Your task to perform on an android device: Go to location settings Image 0: 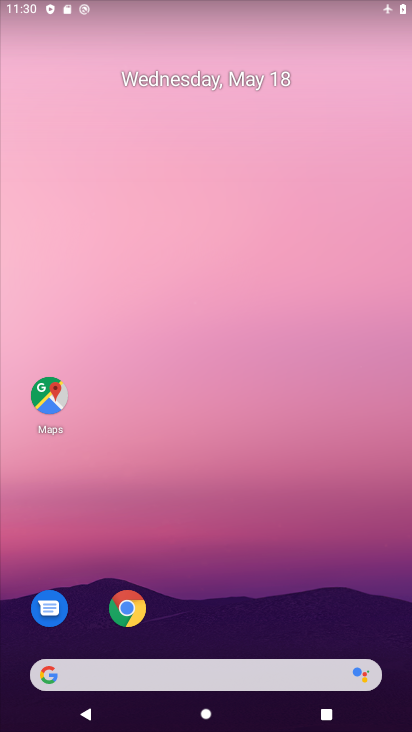
Step 0: drag from (348, 595) to (362, 96)
Your task to perform on an android device: Go to location settings Image 1: 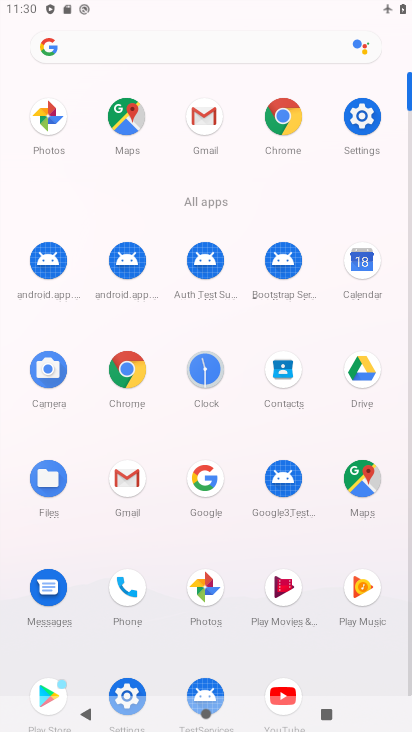
Step 1: click (360, 119)
Your task to perform on an android device: Go to location settings Image 2: 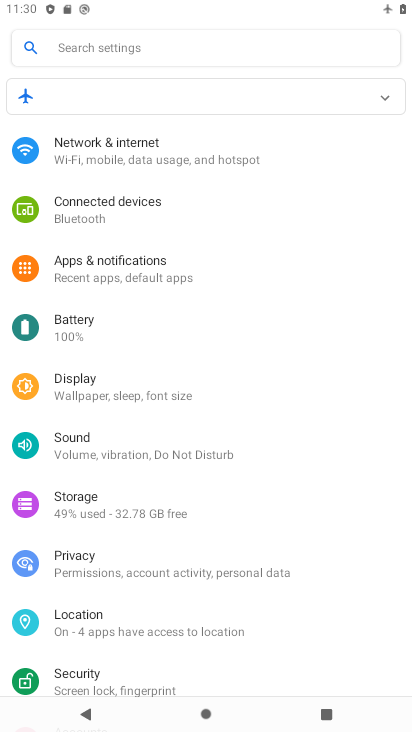
Step 2: click (117, 613)
Your task to perform on an android device: Go to location settings Image 3: 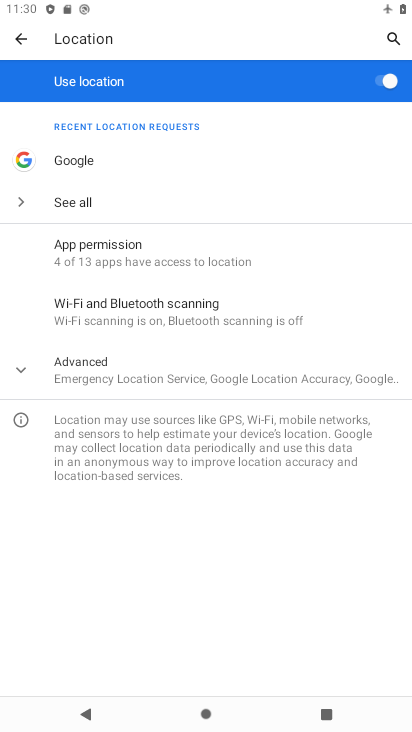
Step 3: click (183, 375)
Your task to perform on an android device: Go to location settings Image 4: 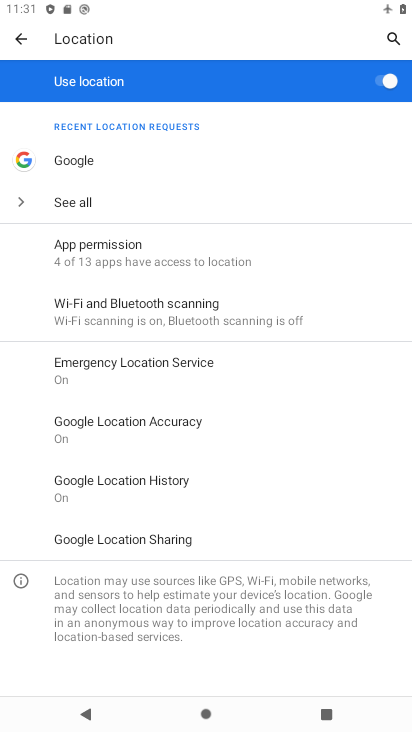
Step 4: task complete